Your task to perform on an android device: check android version Image 0: 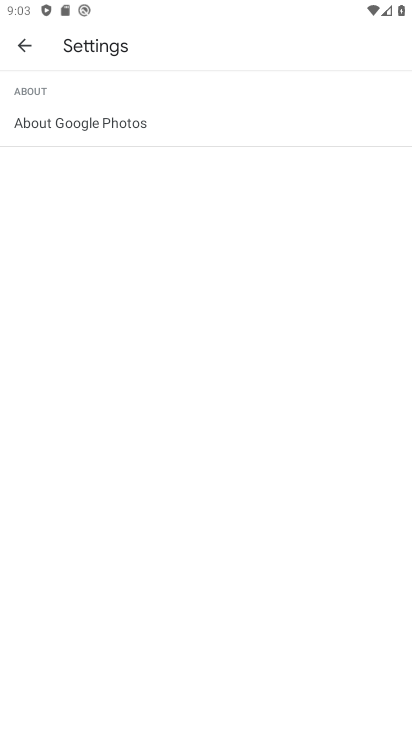
Step 0: press home button
Your task to perform on an android device: check android version Image 1: 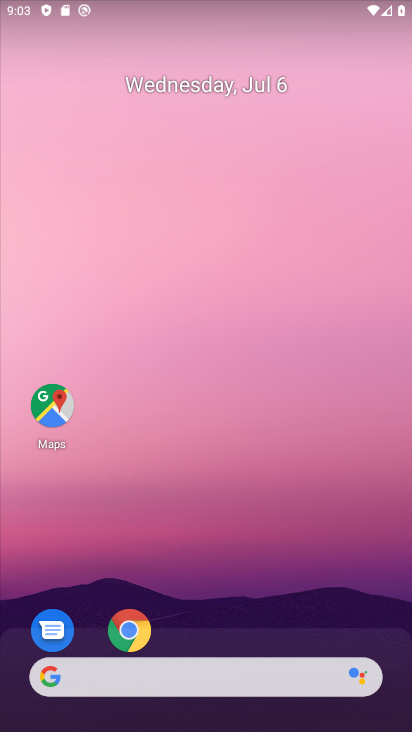
Step 1: click (199, 333)
Your task to perform on an android device: check android version Image 2: 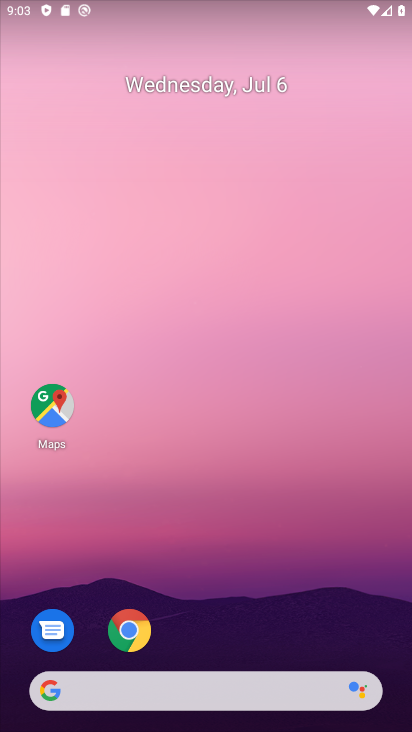
Step 2: click (179, 249)
Your task to perform on an android device: check android version Image 3: 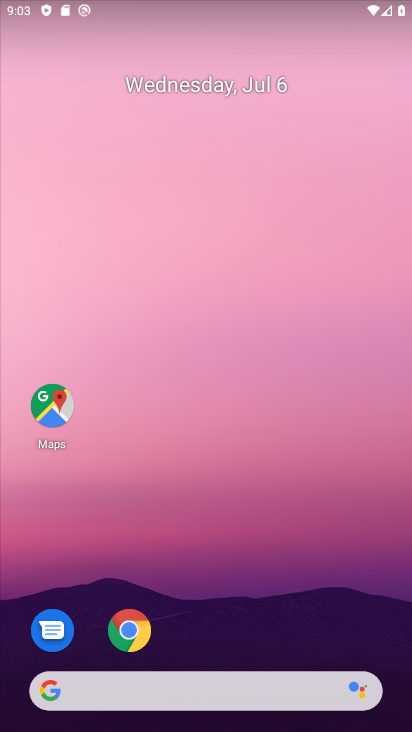
Step 3: drag from (254, 599) to (272, 87)
Your task to perform on an android device: check android version Image 4: 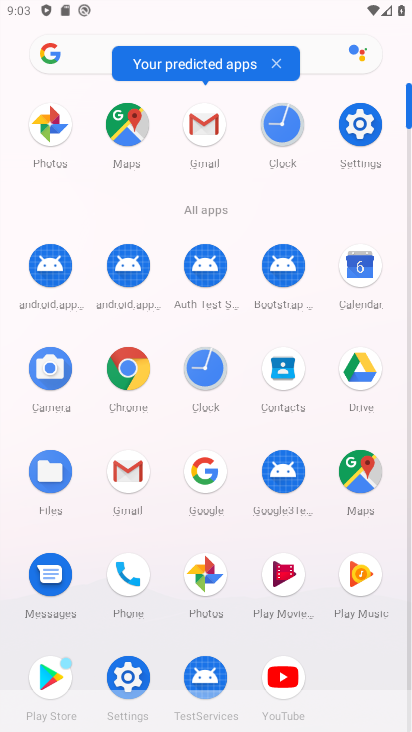
Step 4: click (348, 133)
Your task to perform on an android device: check android version Image 5: 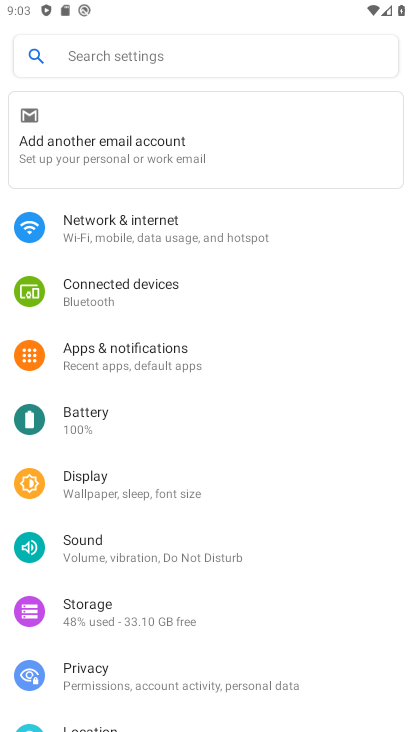
Step 5: drag from (97, 700) to (108, 286)
Your task to perform on an android device: check android version Image 6: 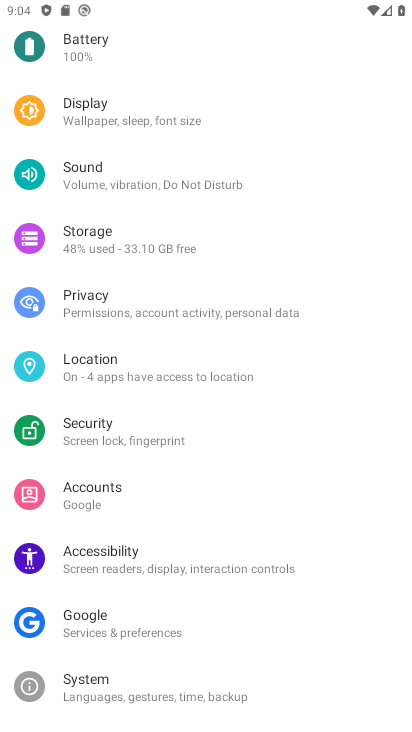
Step 6: drag from (98, 700) to (135, 238)
Your task to perform on an android device: check android version Image 7: 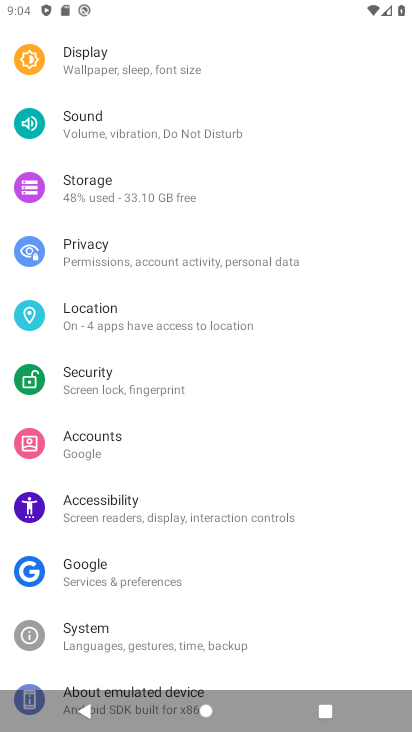
Step 7: drag from (124, 664) to (188, 254)
Your task to perform on an android device: check android version Image 8: 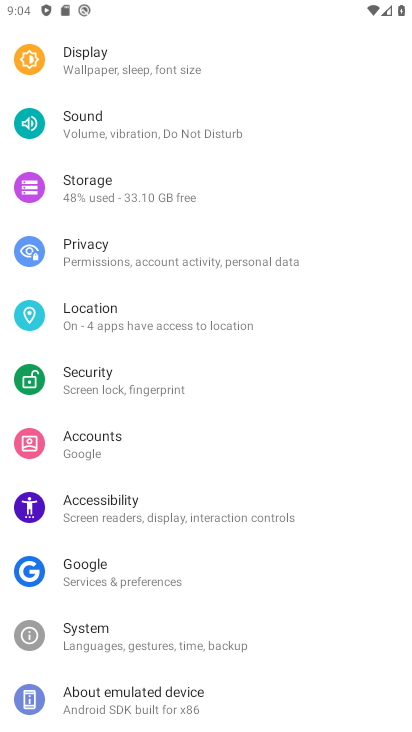
Step 8: click (122, 700)
Your task to perform on an android device: check android version Image 9: 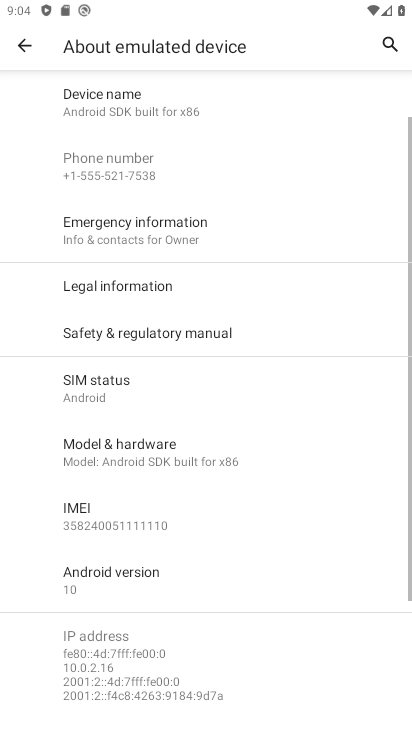
Step 9: click (105, 572)
Your task to perform on an android device: check android version Image 10: 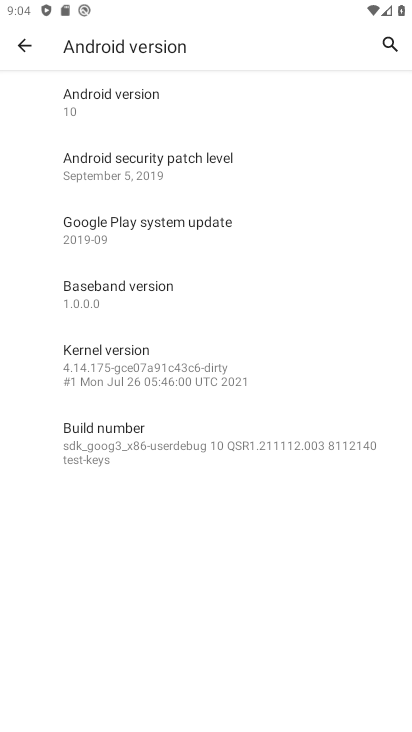
Step 10: task complete